Your task to perform on an android device: Search for sushi restaurants on Maps Image 0: 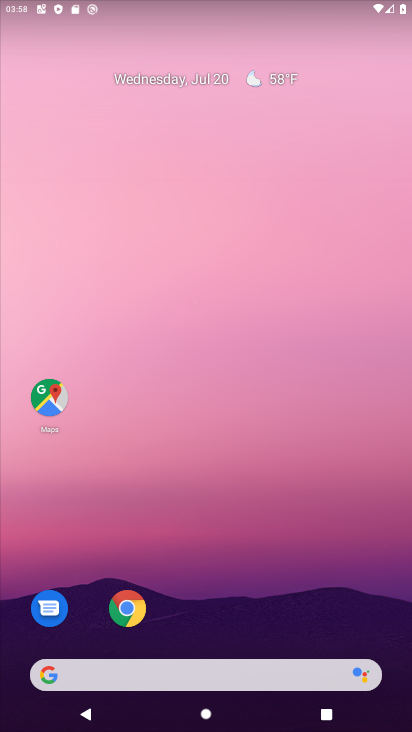
Step 0: click (38, 423)
Your task to perform on an android device: Search for sushi restaurants on Maps Image 1: 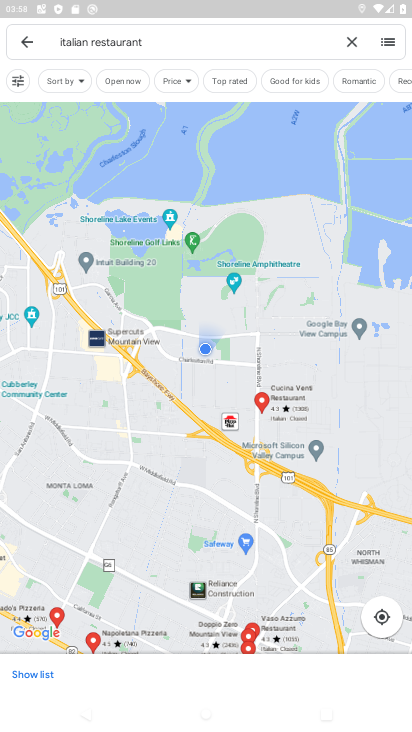
Step 1: click (349, 39)
Your task to perform on an android device: Search for sushi restaurants on Maps Image 2: 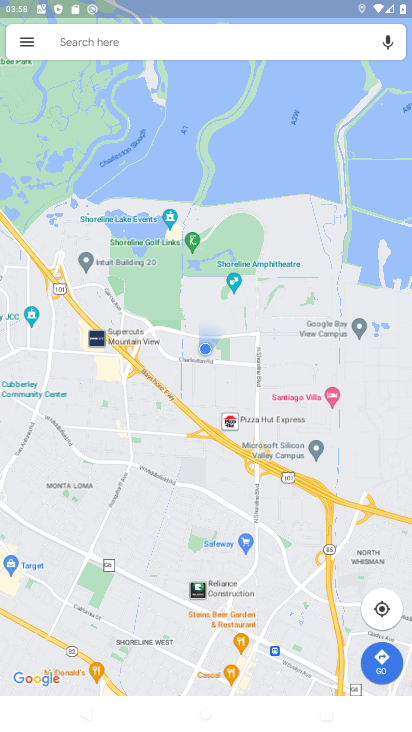
Step 2: click (222, 46)
Your task to perform on an android device: Search for sushi restaurants on Maps Image 3: 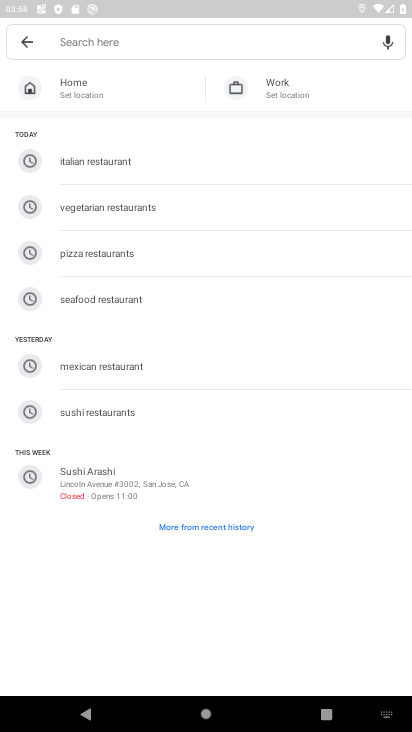
Step 3: type "sushi"
Your task to perform on an android device: Search for sushi restaurants on Maps Image 4: 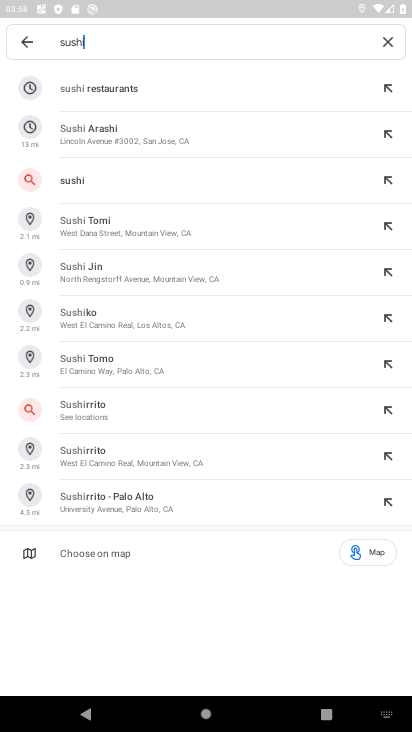
Step 4: click (92, 74)
Your task to perform on an android device: Search for sushi restaurants on Maps Image 5: 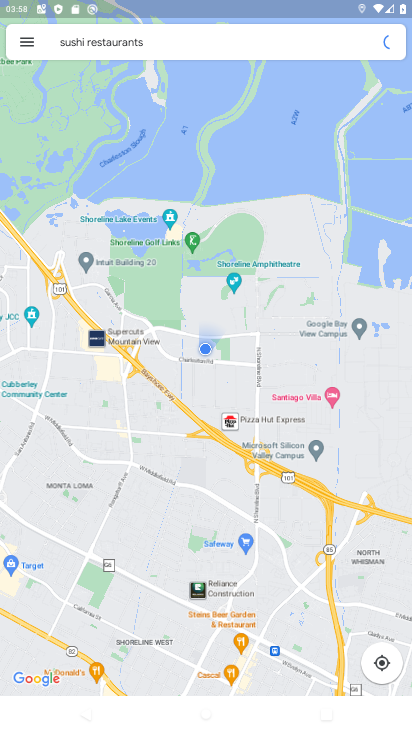
Step 5: task complete